Your task to perform on an android device: delete a single message in the gmail app Image 0: 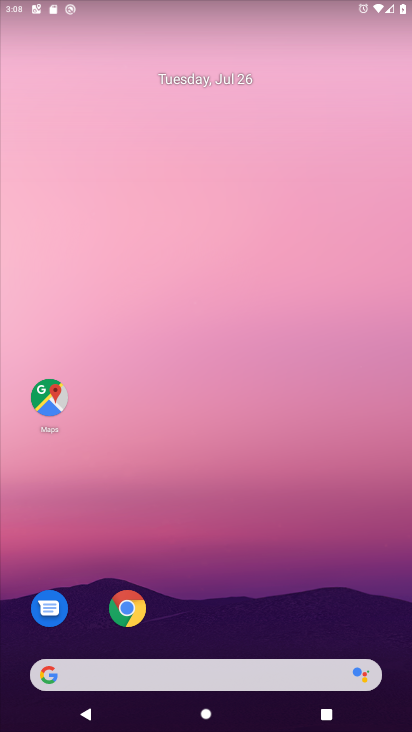
Step 0: drag from (255, 604) to (170, 51)
Your task to perform on an android device: delete a single message in the gmail app Image 1: 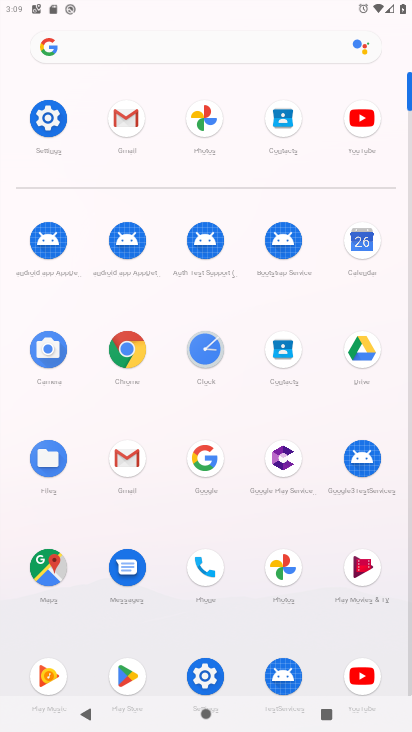
Step 1: click (136, 455)
Your task to perform on an android device: delete a single message in the gmail app Image 2: 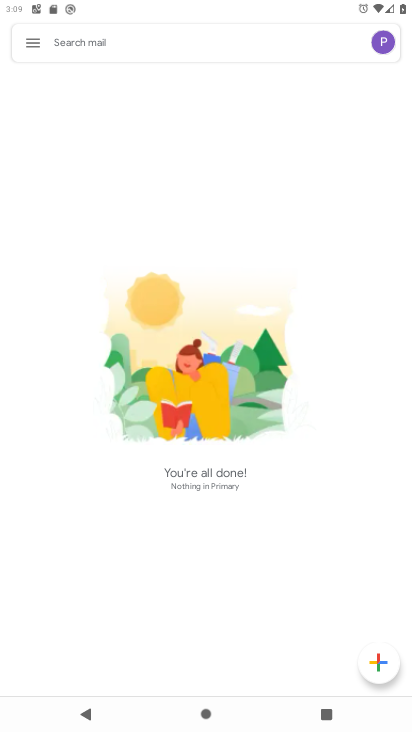
Step 2: click (21, 31)
Your task to perform on an android device: delete a single message in the gmail app Image 3: 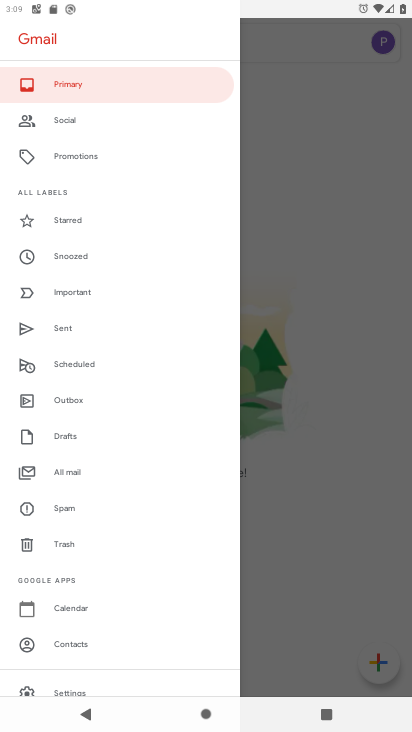
Step 3: click (67, 467)
Your task to perform on an android device: delete a single message in the gmail app Image 4: 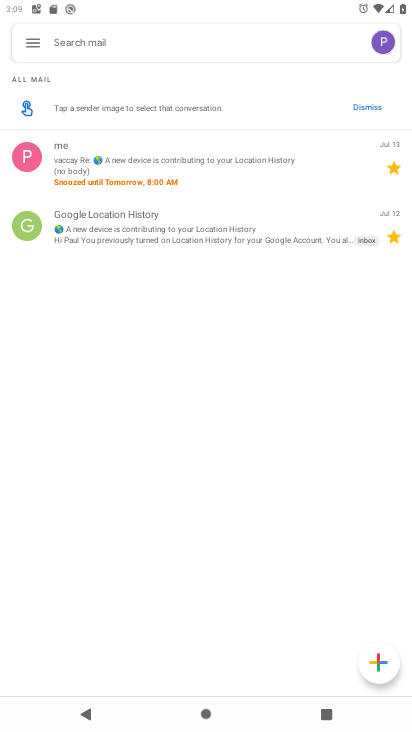
Step 4: click (19, 160)
Your task to perform on an android device: delete a single message in the gmail app Image 5: 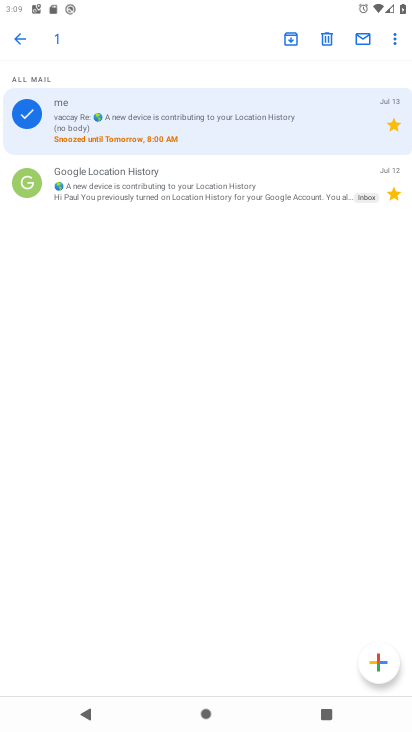
Step 5: click (334, 33)
Your task to perform on an android device: delete a single message in the gmail app Image 6: 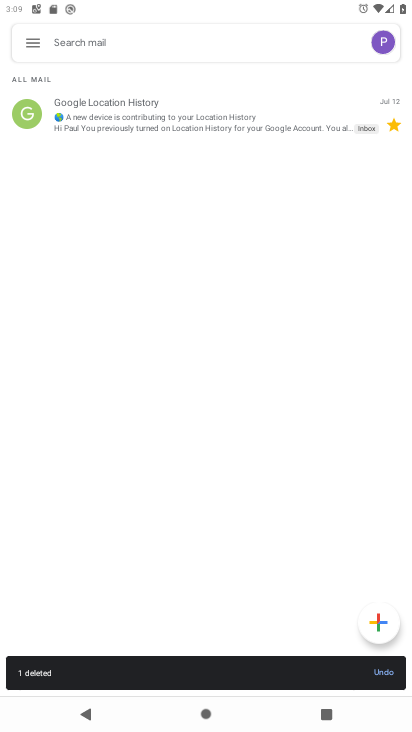
Step 6: task complete